Your task to perform on an android device: snooze an email in the gmail app Image 0: 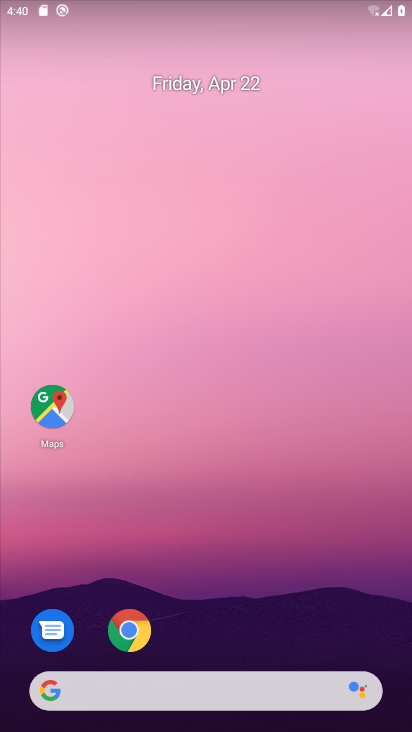
Step 0: drag from (291, 591) to (252, 40)
Your task to perform on an android device: snooze an email in the gmail app Image 1: 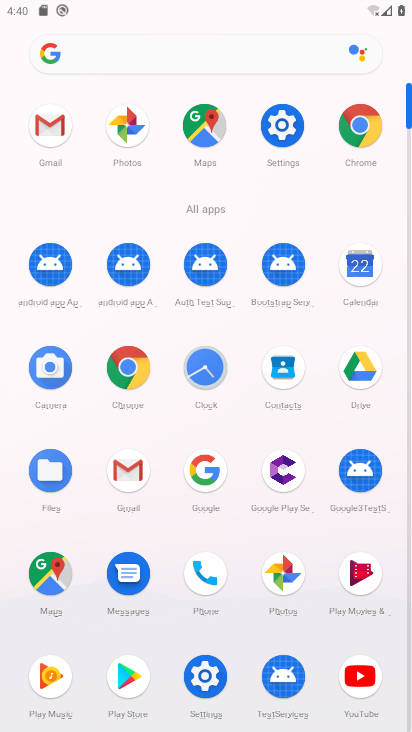
Step 1: click (41, 117)
Your task to perform on an android device: snooze an email in the gmail app Image 2: 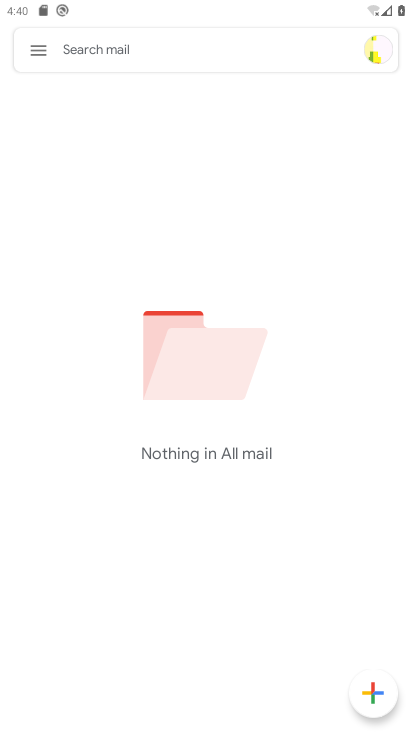
Step 2: click (30, 53)
Your task to perform on an android device: snooze an email in the gmail app Image 3: 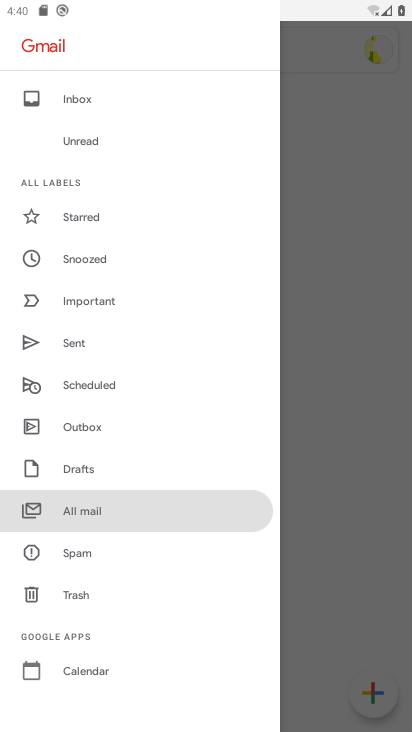
Step 3: click (92, 249)
Your task to perform on an android device: snooze an email in the gmail app Image 4: 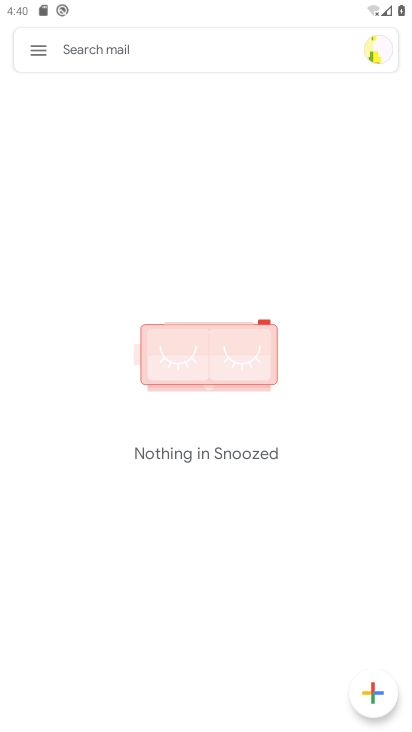
Step 4: task complete